Your task to perform on an android device: Search for the ikea sjalv lamp Image 0: 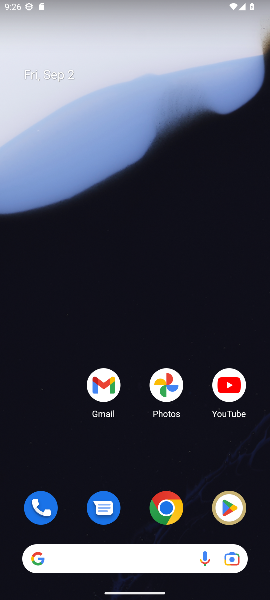
Step 0: drag from (200, 467) to (220, 320)
Your task to perform on an android device: Search for the ikea sjalv lamp Image 1: 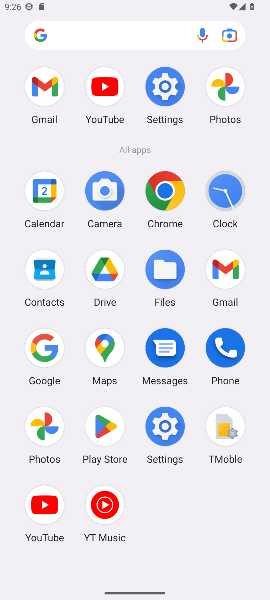
Step 1: click (161, 189)
Your task to perform on an android device: Search for the ikea sjalv lamp Image 2: 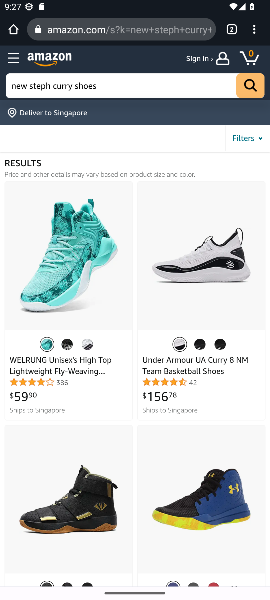
Step 2: click (100, 31)
Your task to perform on an android device: Search for the ikea sjalv lamp Image 3: 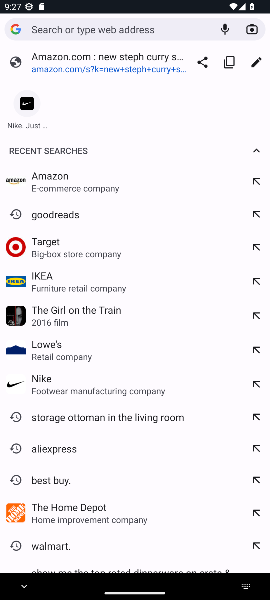
Step 3: type " ikea sjalv lamp"
Your task to perform on an android device: Search for the ikea sjalv lamp Image 4: 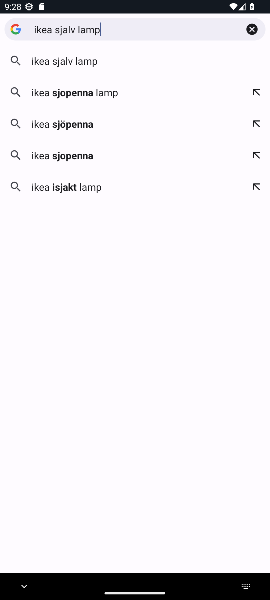
Step 4: click (66, 62)
Your task to perform on an android device: Search for the ikea sjalv lamp Image 5: 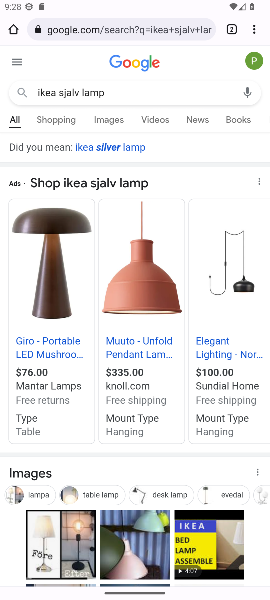
Step 5: task complete